Your task to perform on an android device: Go to Wikipedia Image 0: 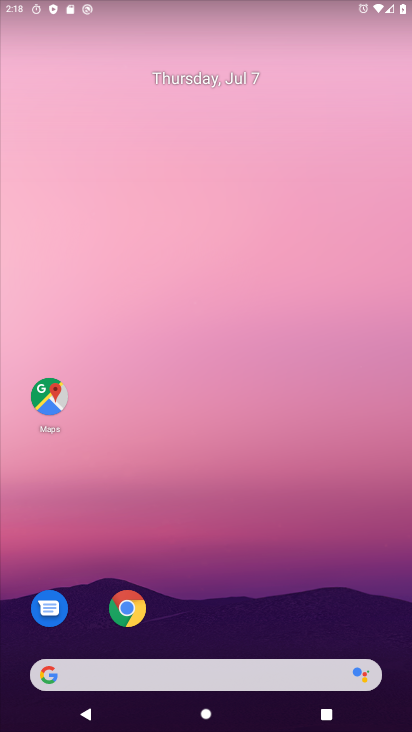
Step 0: click (121, 603)
Your task to perform on an android device: Go to Wikipedia Image 1: 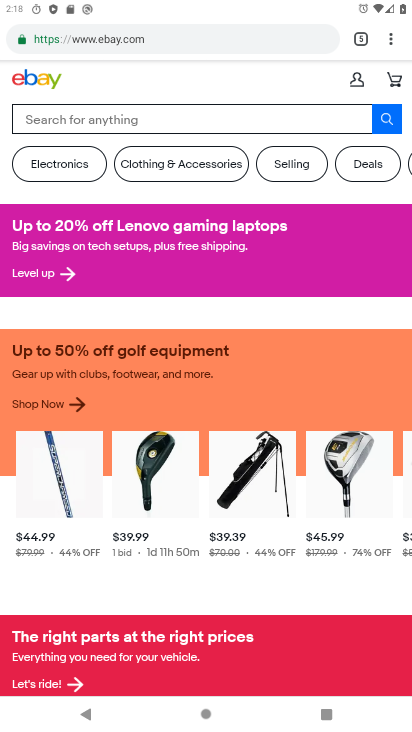
Step 1: click (391, 43)
Your task to perform on an android device: Go to Wikipedia Image 2: 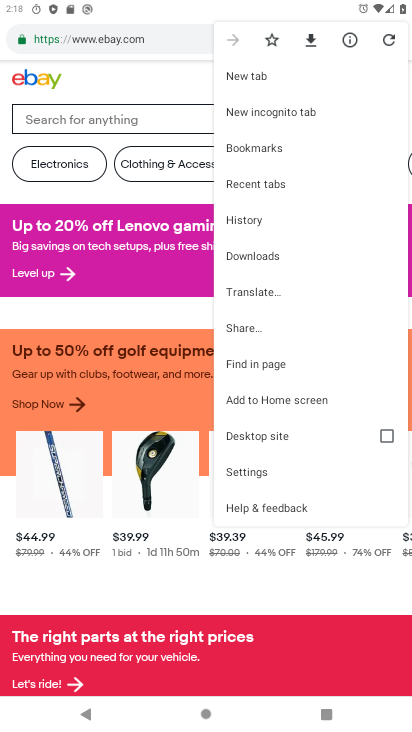
Step 2: click (239, 71)
Your task to perform on an android device: Go to Wikipedia Image 3: 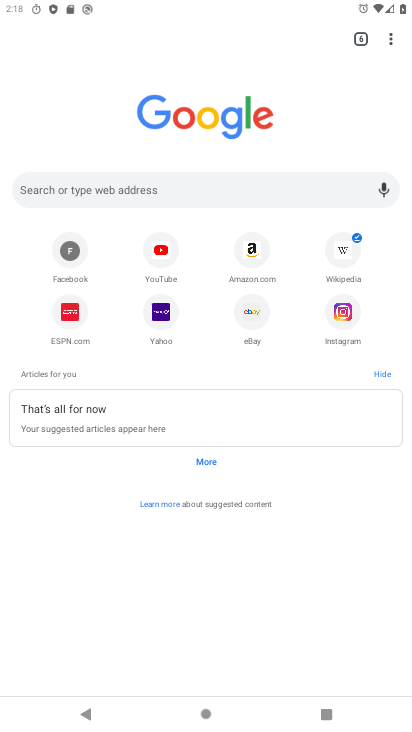
Step 3: click (342, 252)
Your task to perform on an android device: Go to Wikipedia Image 4: 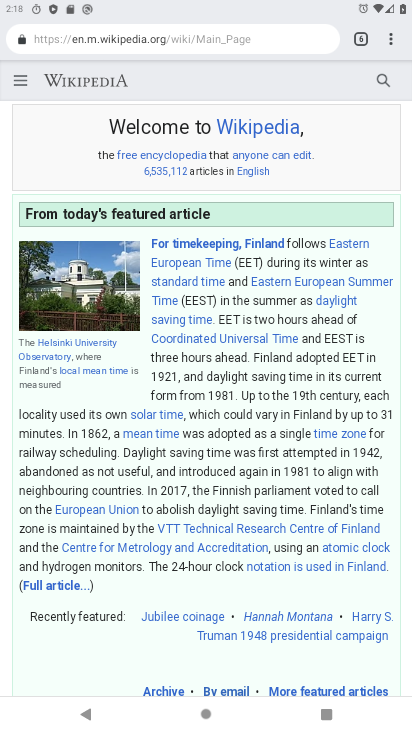
Step 4: task complete